Your task to perform on an android device: Open Chrome and go to settings Image 0: 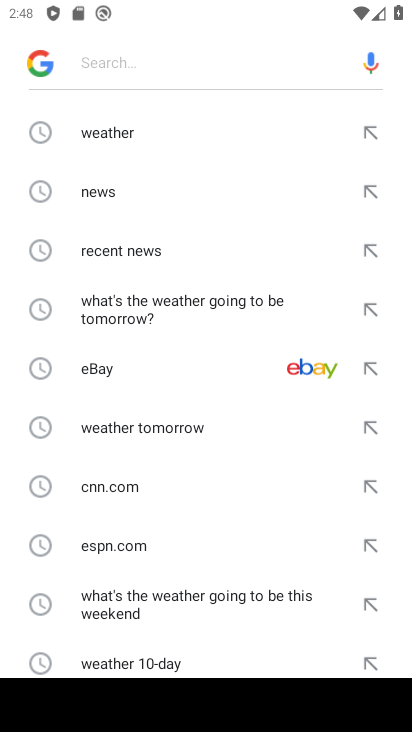
Step 0: press home button
Your task to perform on an android device: Open Chrome and go to settings Image 1: 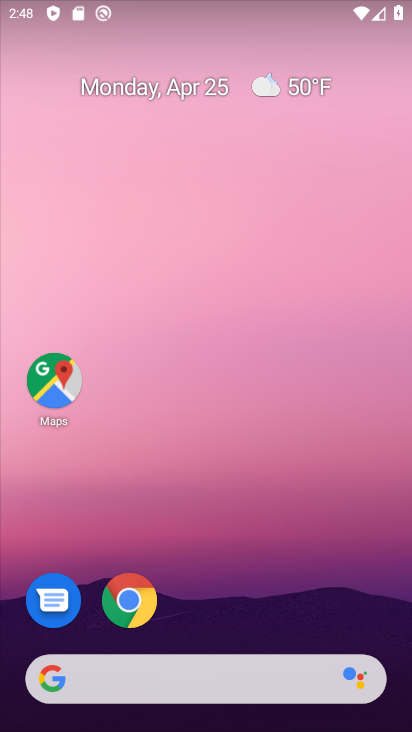
Step 1: drag from (382, 593) to (297, 171)
Your task to perform on an android device: Open Chrome and go to settings Image 2: 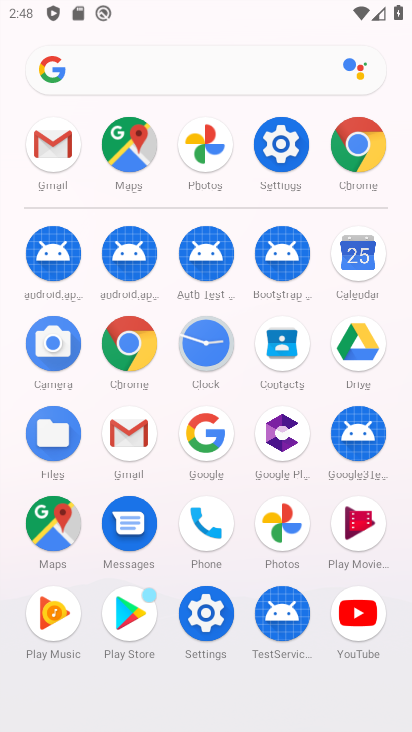
Step 2: click (201, 611)
Your task to perform on an android device: Open Chrome and go to settings Image 3: 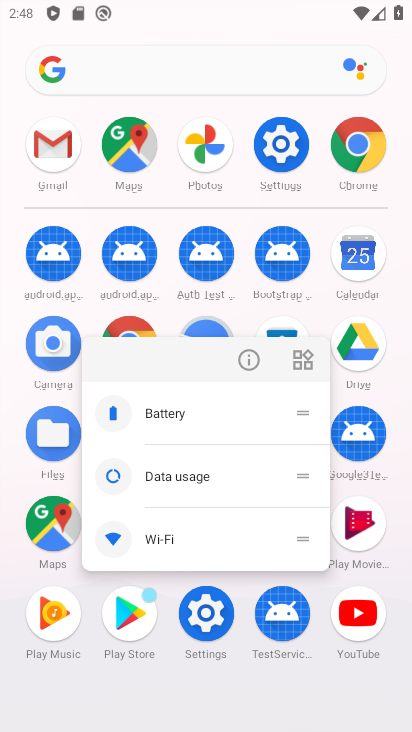
Step 3: click (223, 624)
Your task to perform on an android device: Open Chrome and go to settings Image 4: 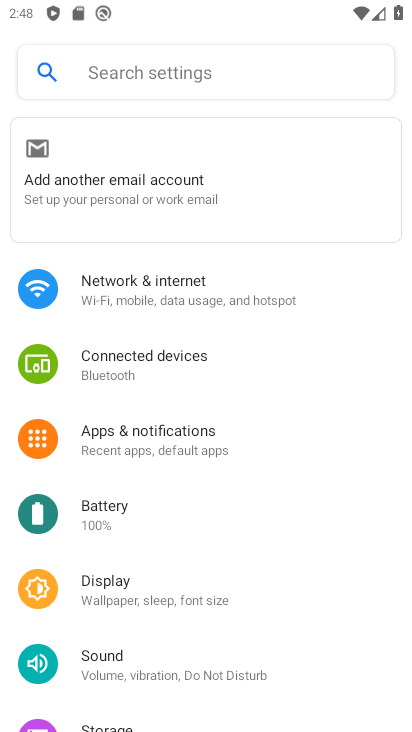
Step 4: press home button
Your task to perform on an android device: Open Chrome and go to settings Image 5: 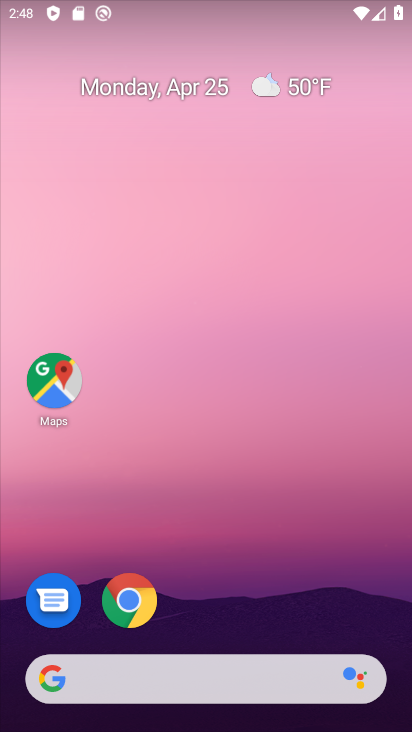
Step 5: drag from (355, 559) to (323, 189)
Your task to perform on an android device: Open Chrome and go to settings Image 6: 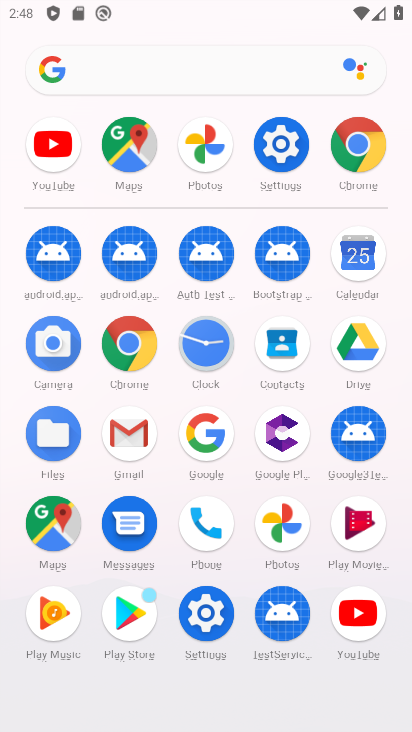
Step 6: click (144, 349)
Your task to perform on an android device: Open Chrome and go to settings Image 7: 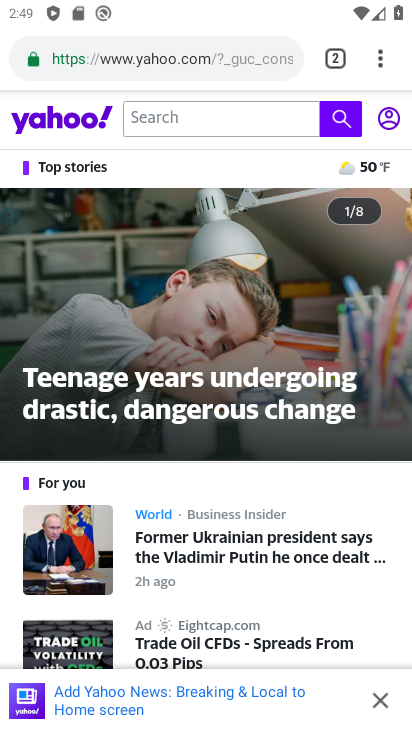
Step 7: task complete